Your task to perform on an android device: Open the map Image 0: 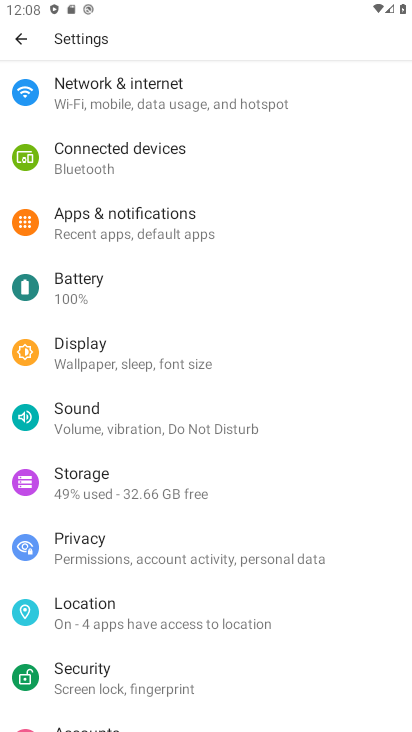
Step 0: press home button
Your task to perform on an android device: Open the map Image 1: 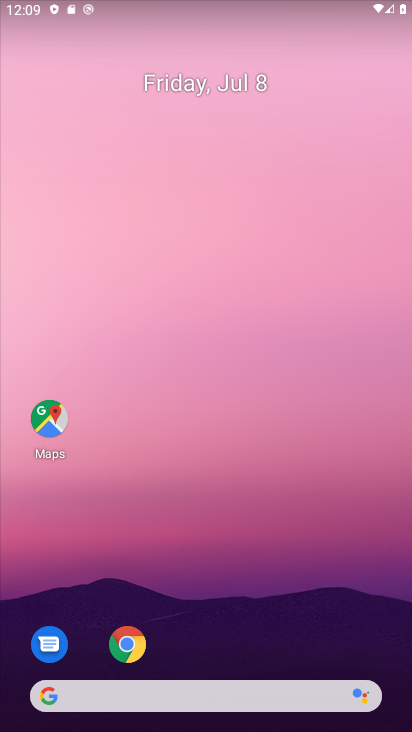
Step 1: click (56, 417)
Your task to perform on an android device: Open the map Image 2: 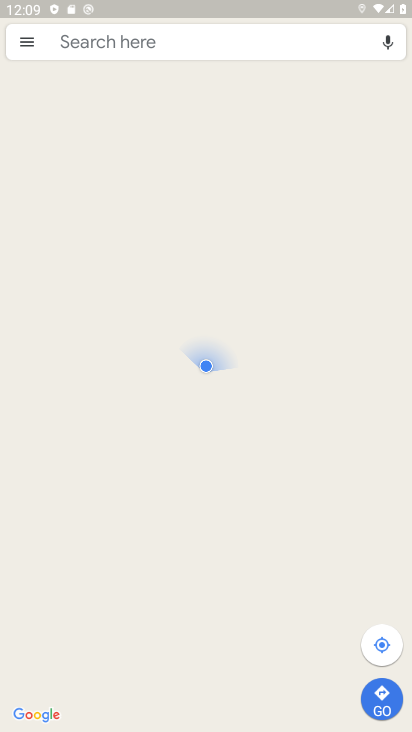
Step 2: task complete